Your task to perform on an android device: choose inbox layout in the gmail app Image 0: 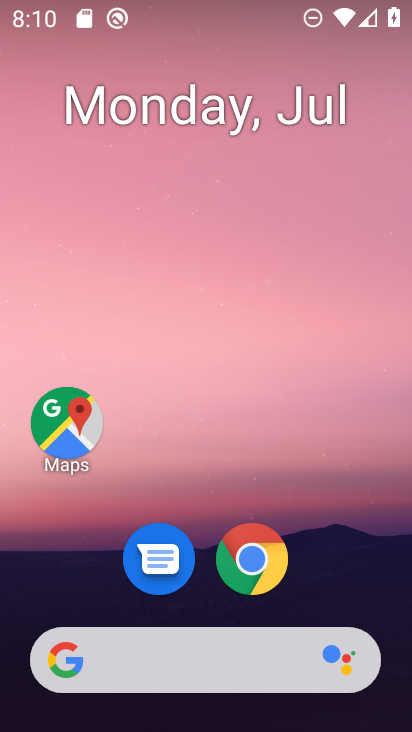
Step 0: drag from (84, 607) to (207, 0)
Your task to perform on an android device: choose inbox layout in the gmail app Image 1: 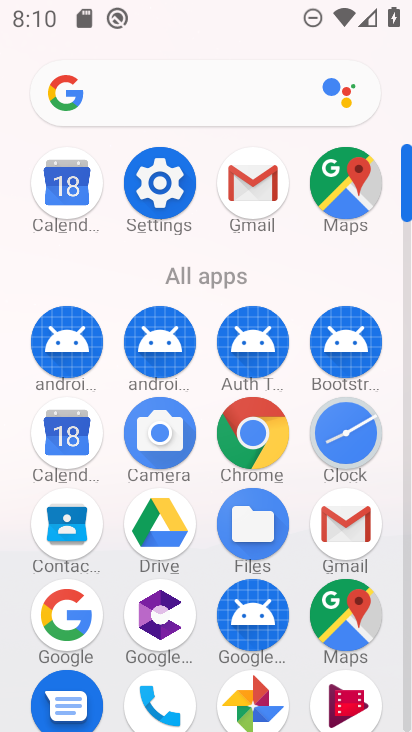
Step 1: click (251, 178)
Your task to perform on an android device: choose inbox layout in the gmail app Image 2: 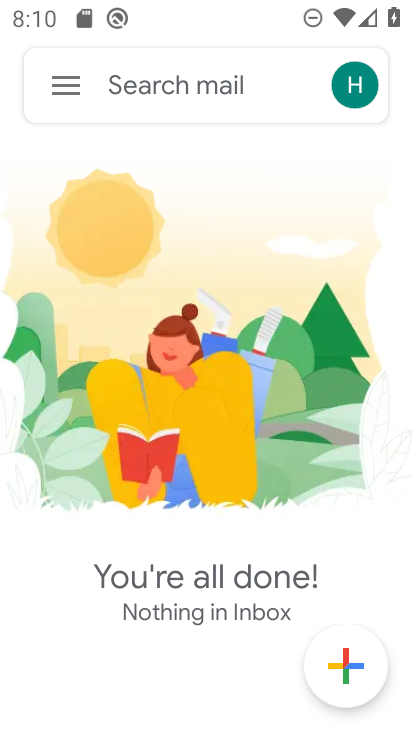
Step 2: click (67, 98)
Your task to perform on an android device: choose inbox layout in the gmail app Image 3: 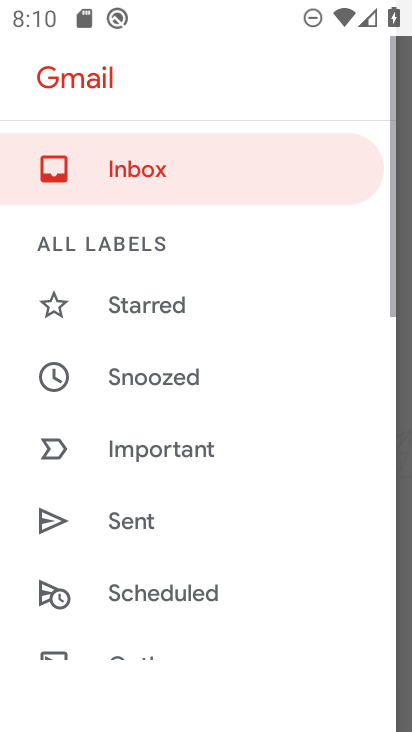
Step 3: drag from (180, 566) to (217, 32)
Your task to perform on an android device: choose inbox layout in the gmail app Image 4: 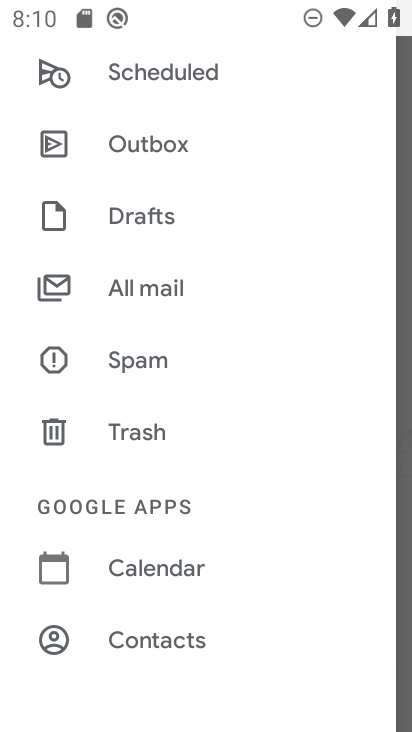
Step 4: drag from (160, 579) to (203, 95)
Your task to perform on an android device: choose inbox layout in the gmail app Image 5: 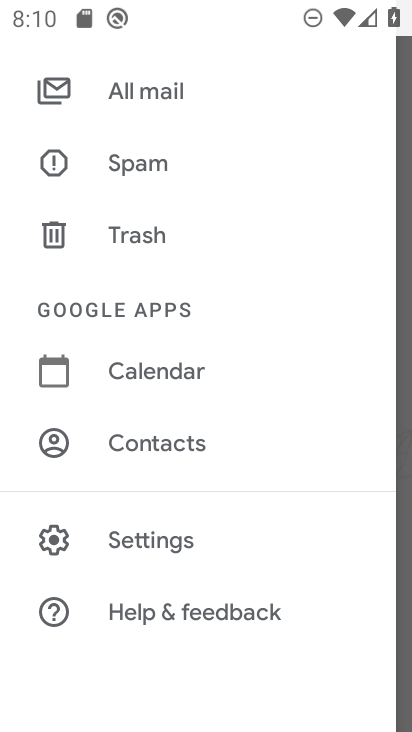
Step 5: click (173, 540)
Your task to perform on an android device: choose inbox layout in the gmail app Image 6: 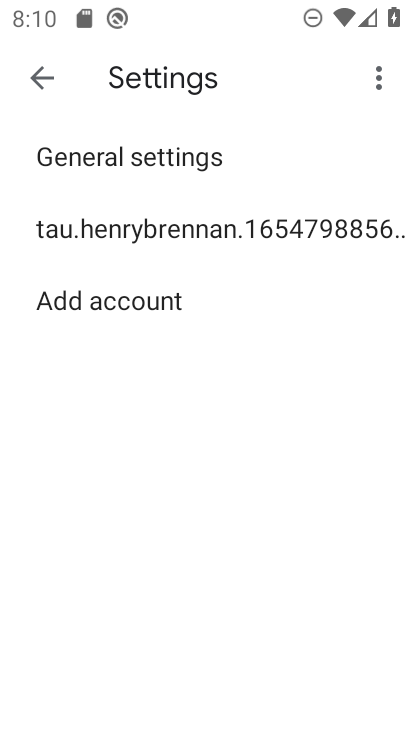
Step 6: click (166, 235)
Your task to perform on an android device: choose inbox layout in the gmail app Image 7: 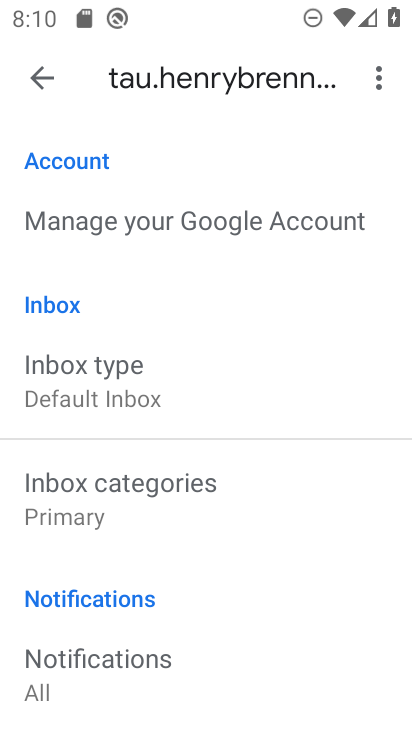
Step 7: click (107, 373)
Your task to perform on an android device: choose inbox layout in the gmail app Image 8: 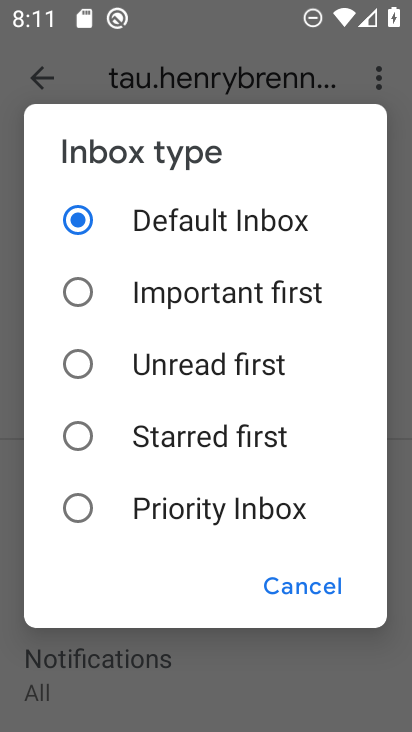
Step 8: click (84, 504)
Your task to perform on an android device: choose inbox layout in the gmail app Image 9: 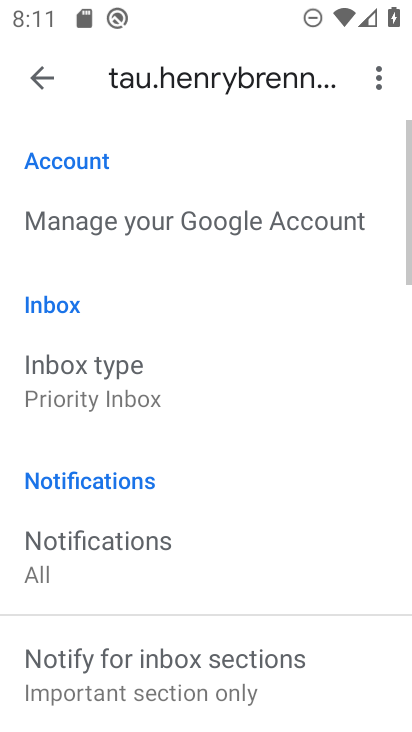
Step 9: task complete